Your task to perform on an android device: When is my next meeting? Image 0: 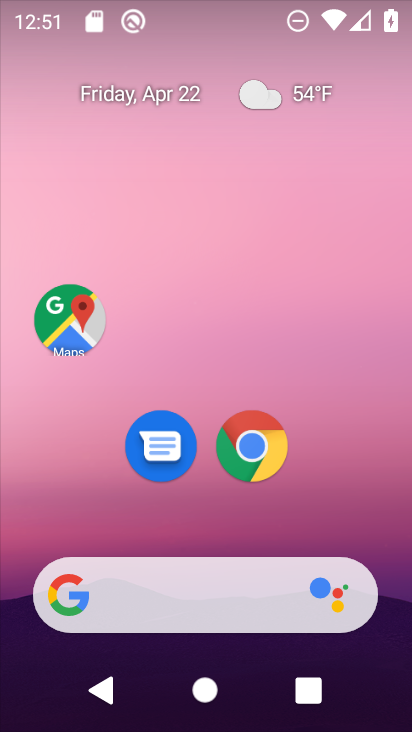
Step 0: click (254, 440)
Your task to perform on an android device: When is my next meeting? Image 1: 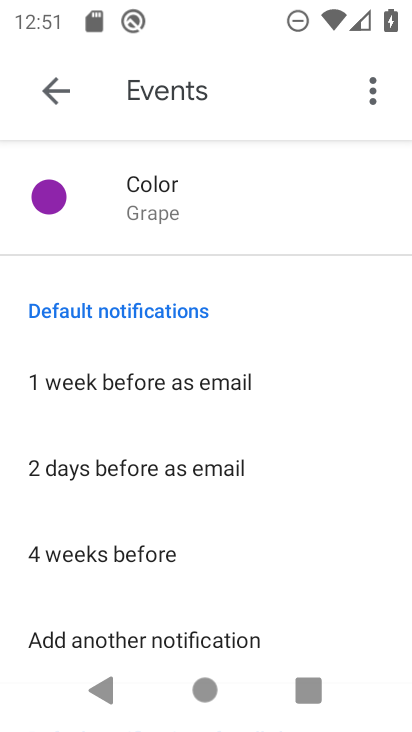
Step 1: press home button
Your task to perform on an android device: When is my next meeting? Image 2: 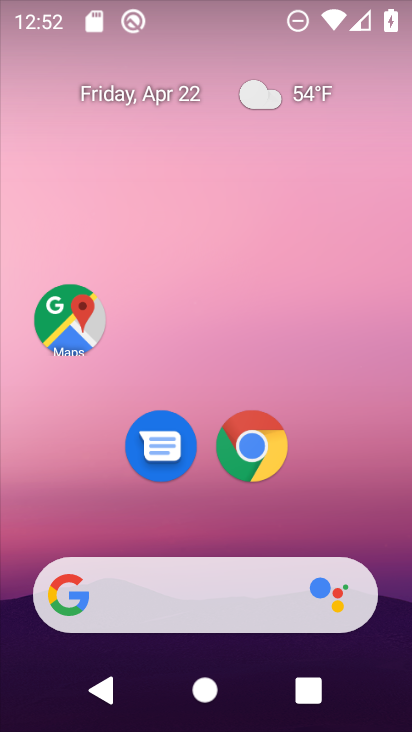
Step 2: drag from (362, 524) to (327, 205)
Your task to perform on an android device: When is my next meeting? Image 3: 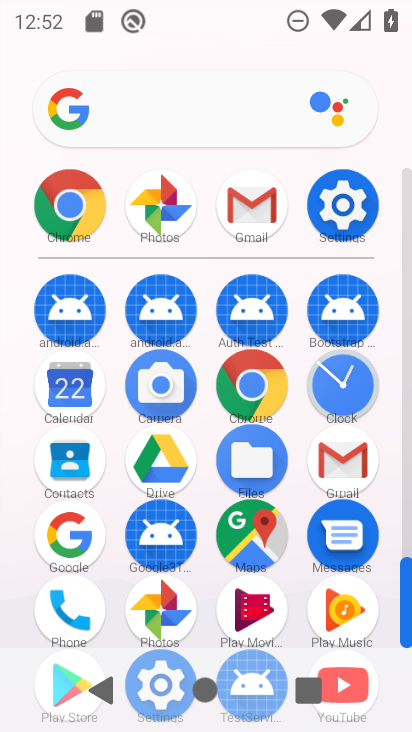
Step 3: click (71, 377)
Your task to perform on an android device: When is my next meeting? Image 4: 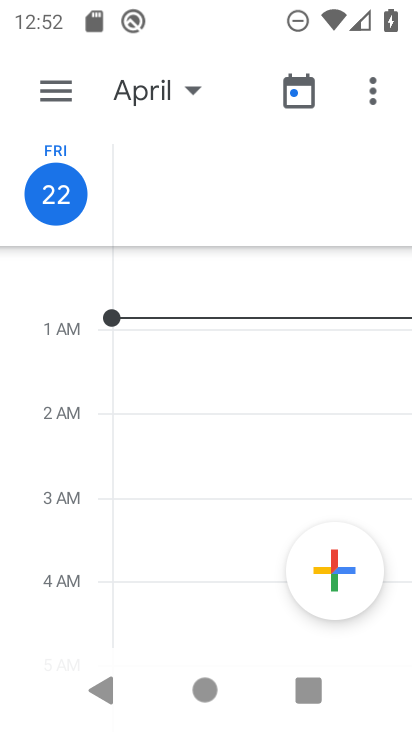
Step 4: click (73, 91)
Your task to perform on an android device: When is my next meeting? Image 5: 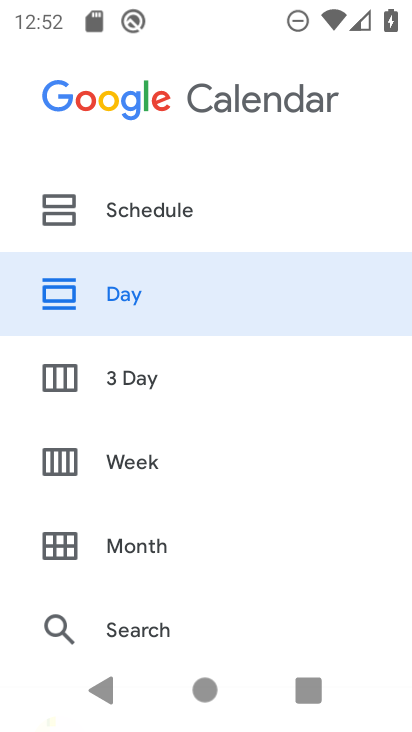
Step 5: drag from (219, 572) to (230, 392)
Your task to perform on an android device: When is my next meeting? Image 6: 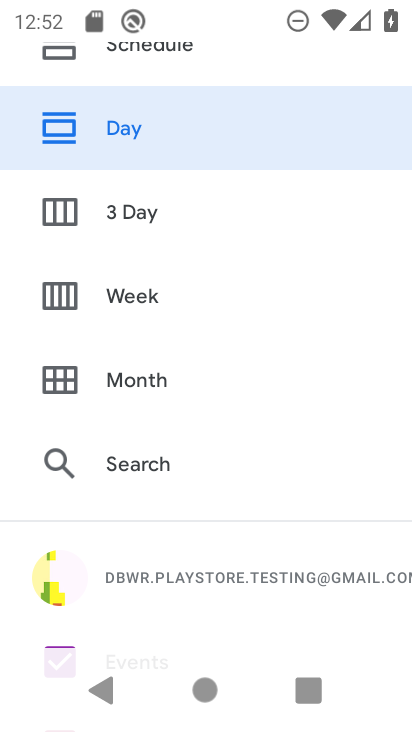
Step 6: click (190, 126)
Your task to perform on an android device: When is my next meeting? Image 7: 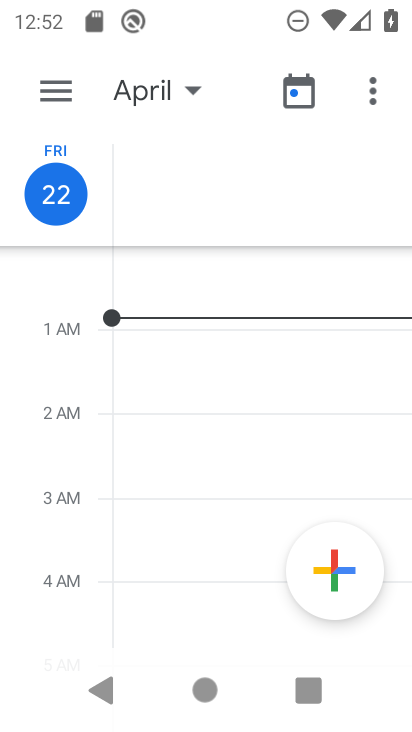
Step 7: click (187, 105)
Your task to perform on an android device: When is my next meeting? Image 8: 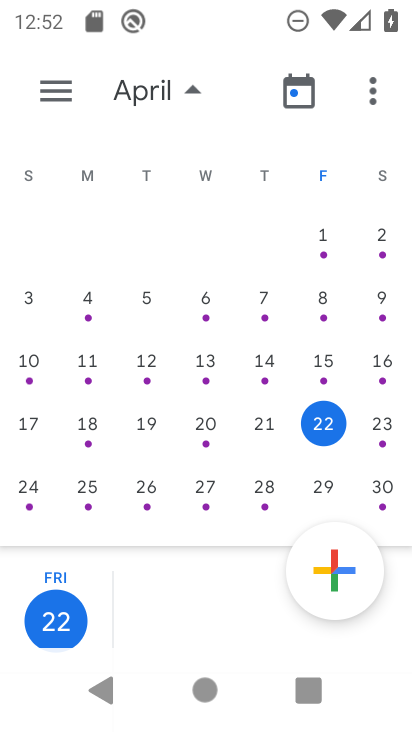
Step 8: click (332, 413)
Your task to perform on an android device: When is my next meeting? Image 9: 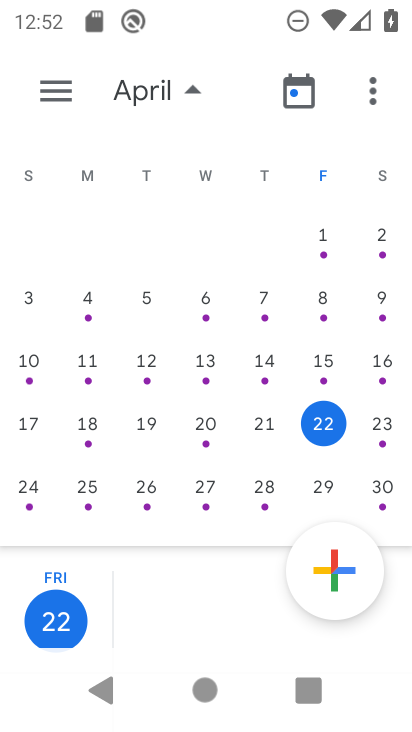
Step 9: click (195, 108)
Your task to perform on an android device: When is my next meeting? Image 10: 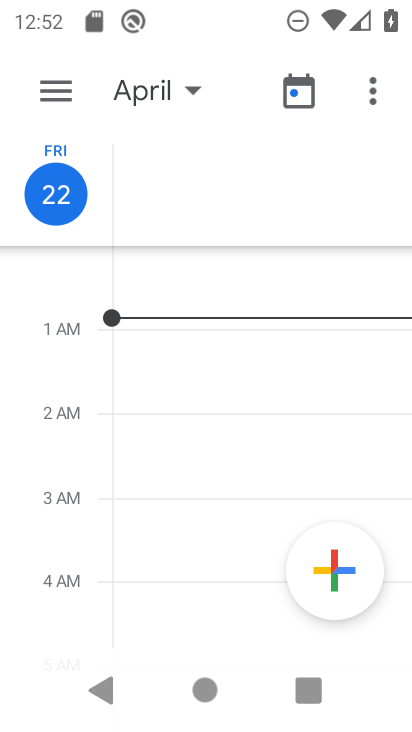
Step 10: task complete